Your task to perform on an android device: Go to Google maps Image 0: 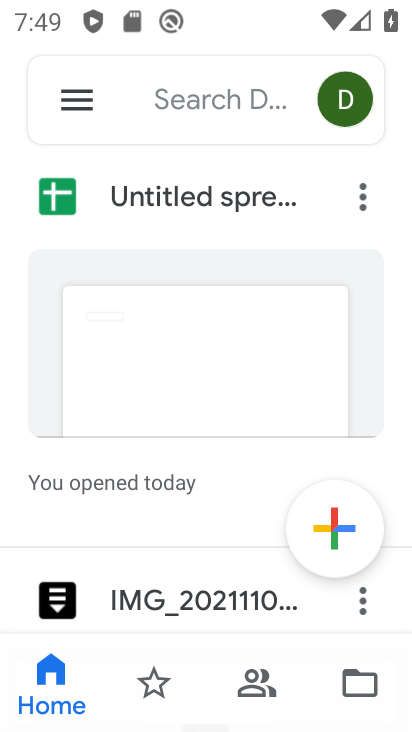
Step 0: press home button
Your task to perform on an android device: Go to Google maps Image 1: 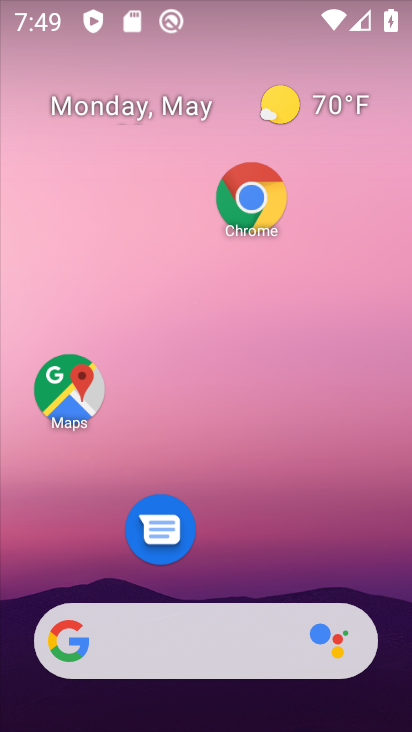
Step 1: click (68, 386)
Your task to perform on an android device: Go to Google maps Image 2: 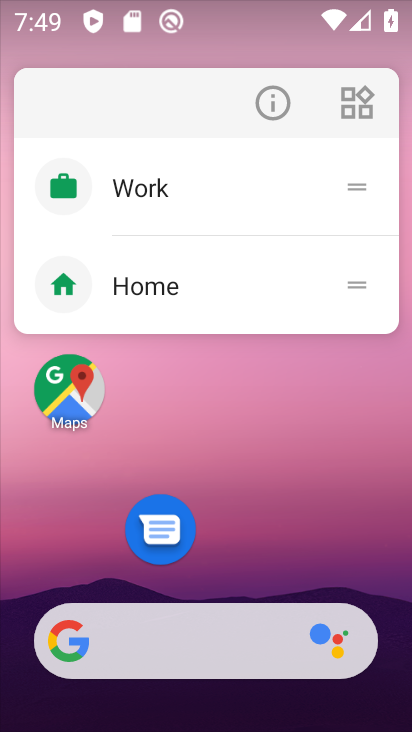
Step 2: click (68, 386)
Your task to perform on an android device: Go to Google maps Image 3: 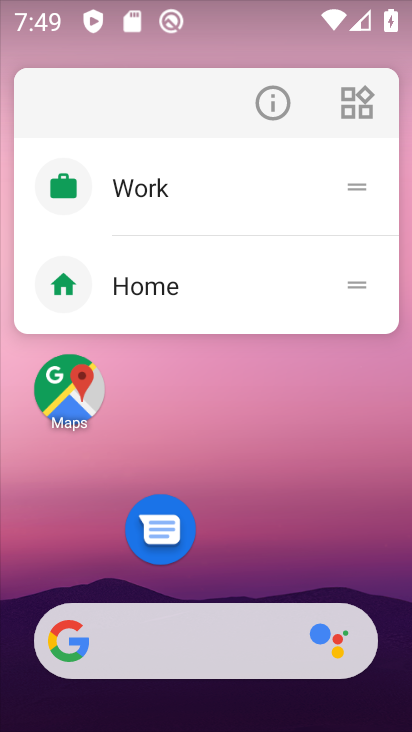
Step 3: click (68, 386)
Your task to perform on an android device: Go to Google maps Image 4: 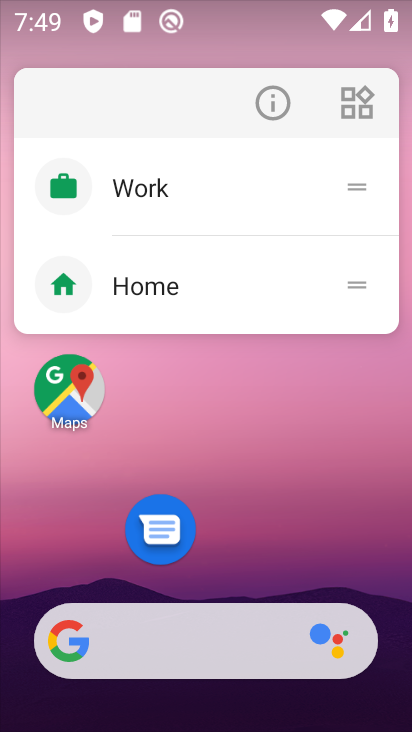
Step 4: click (73, 385)
Your task to perform on an android device: Go to Google maps Image 5: 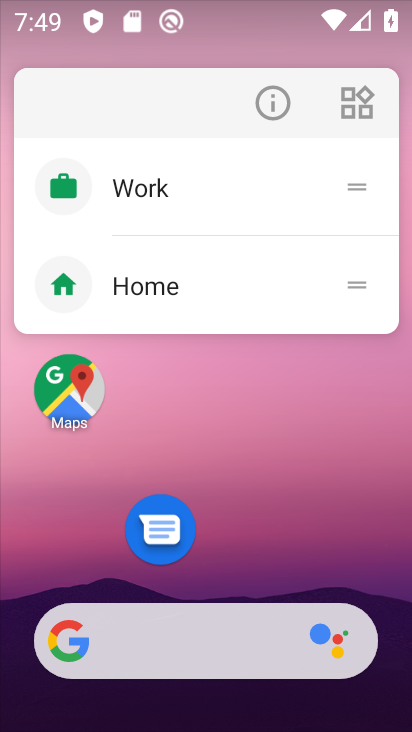
Step 5: click (73, 383)
Your task to perform on an android device: Go to Google maps Image 6: 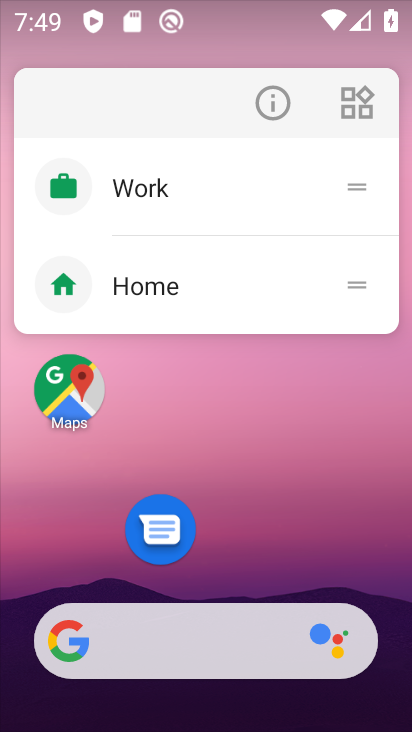
Step 6: click (208, 484)
Your task to perform on an android device: Go to Google maps Image 7: 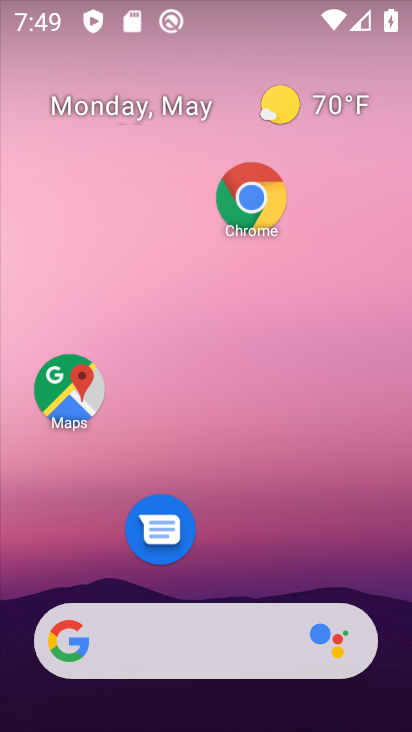
Step 7: drag from (237, 565) to (240, 77)
Your task to perform on an android device: Go to Google maps Image 8: 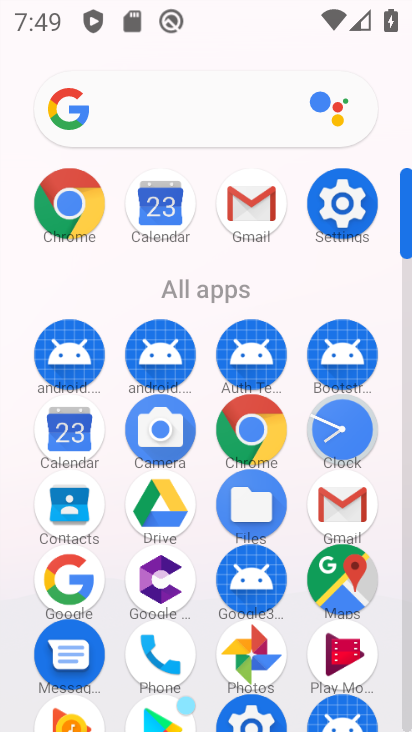
Step 8: click (340, 577)
Your task to perform on an android device: Go to Google maps Image 9: 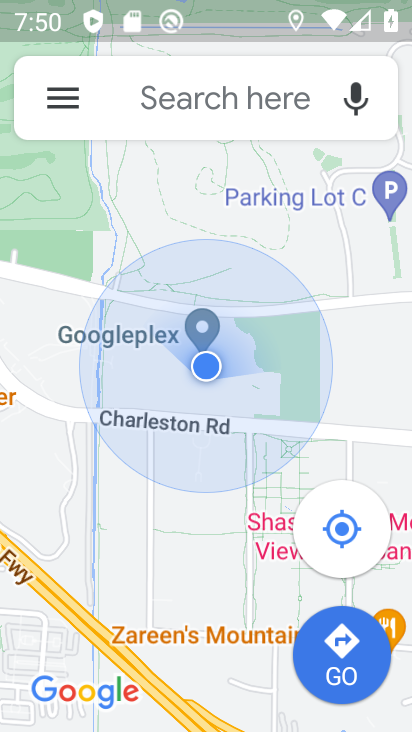
Step 9: task complete